Your task to perform on an android device: Open location settings Image 0: 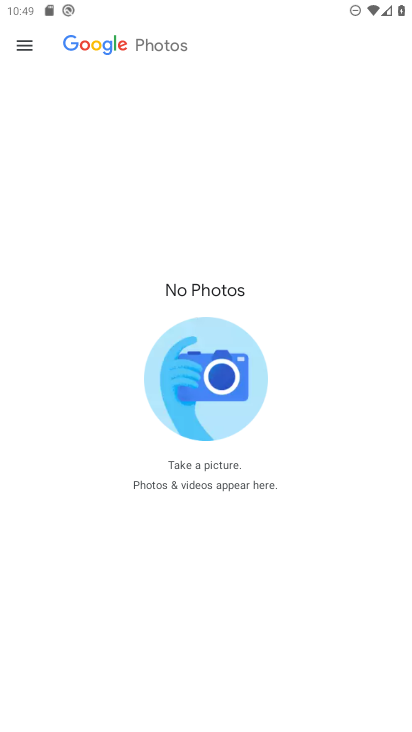
Step 0: press home button
Your task to perform on an android device: Open location settings Image 1: 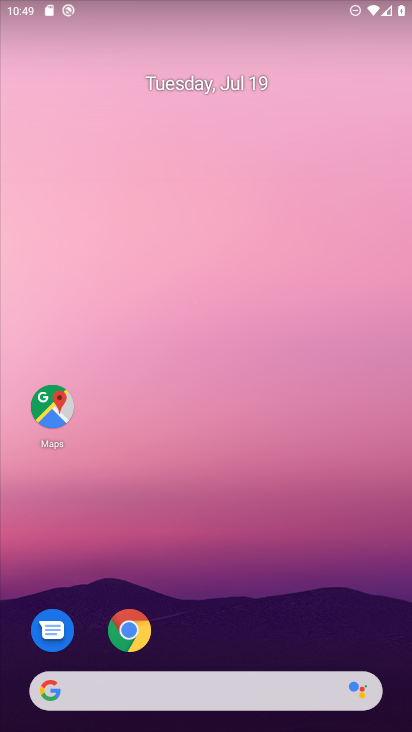
Step 1: drag from (247, 630) to (193, 158)
Your task to perform on an android device: Open location settings Image 2: 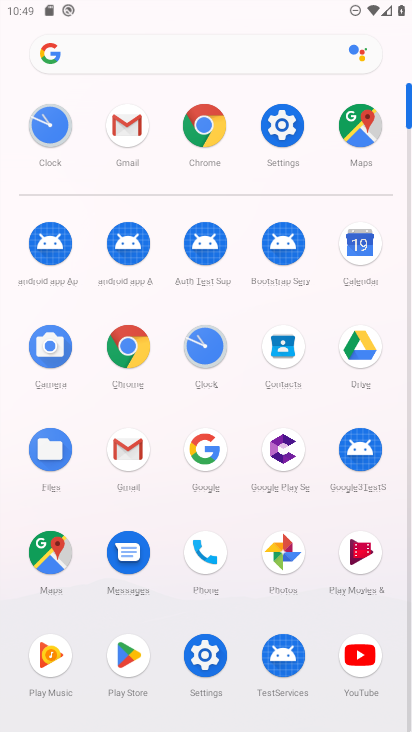
Step 2: click (280, 148)
Your task to perform on an android device: Open location settings Image 3: 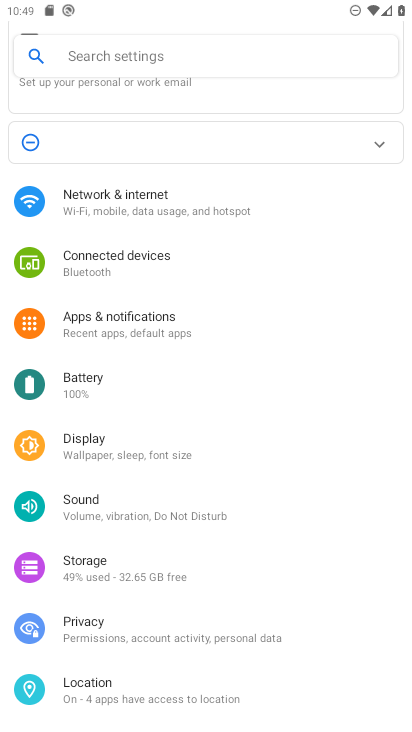
Step 3: click (152, 675)
Your task to perform on an android device: Open location settings Image 4: 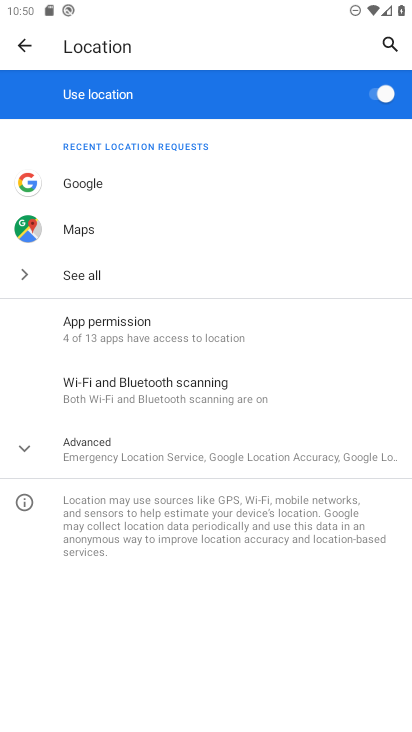
Step 4: task complete